Your task to perform on an android device: Go to Android settings Image 0: 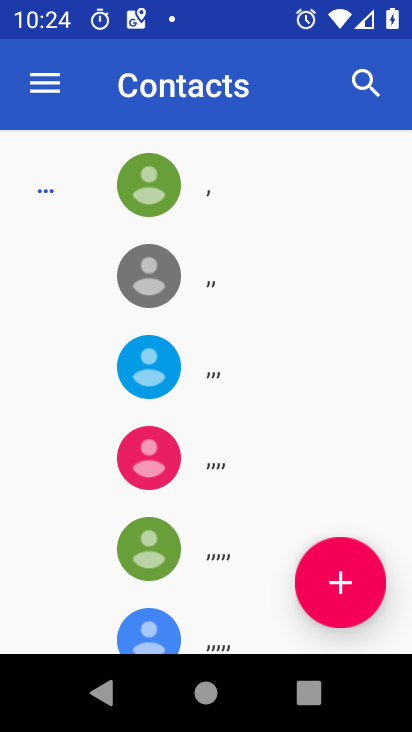
Step 0: press home button
Your task to perform on an android device: Go to Android settings Image 1: 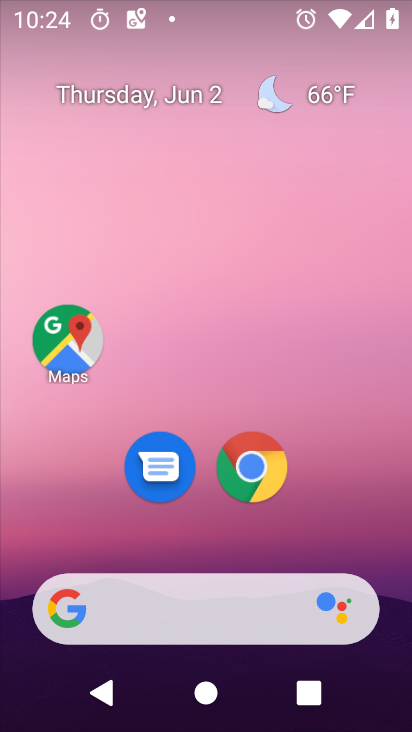
Step 1: drag from (22, 725) to (198, 246)
Your task to perform on an android device: Go to Android settings Image 2: 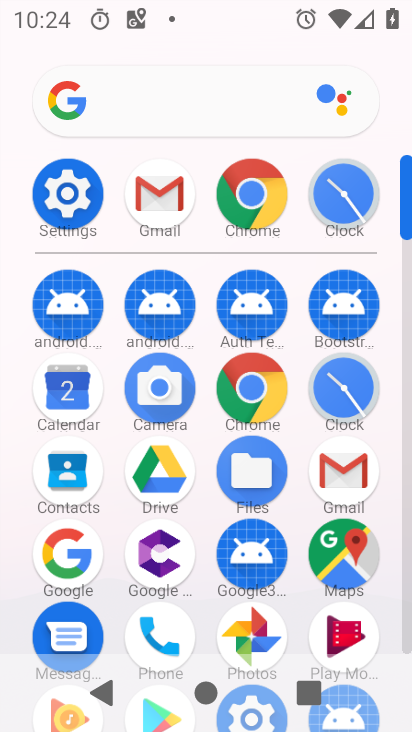
Step 2: click (87, 188)
Your task to perform on an android device: Go to Android settings Image 3: 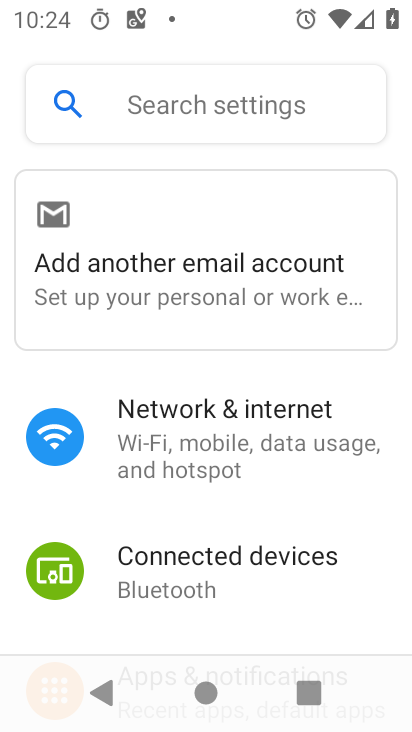
Step 3: drag from (0, 184) to (221, 96)
Your task to perform on an android device: Go to Android settings Image 4: 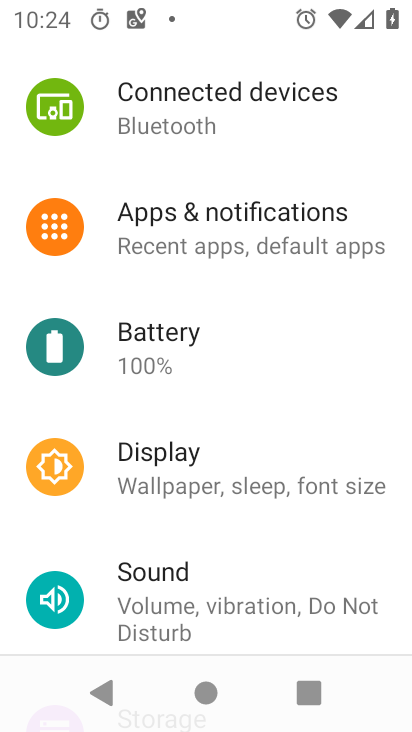
Step 4: drag from (4, 609) to (233, 185)
Your task to perform on an android device: Go to Android settings Image 5: 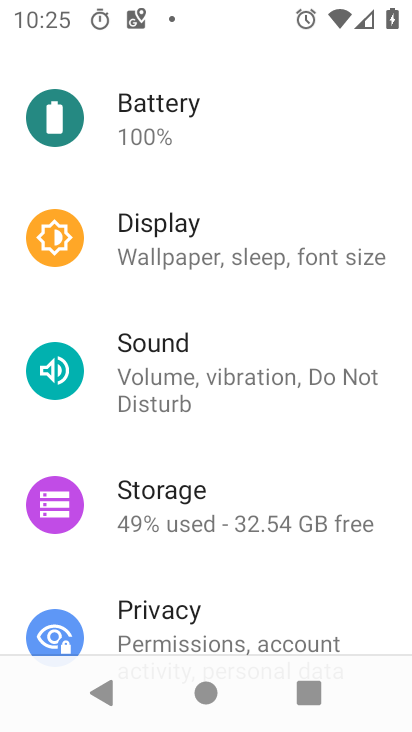
Step 5: drag from (46, 515) to (283, 195)
Your task to perform on an android device: Go to Android settings Image 6: 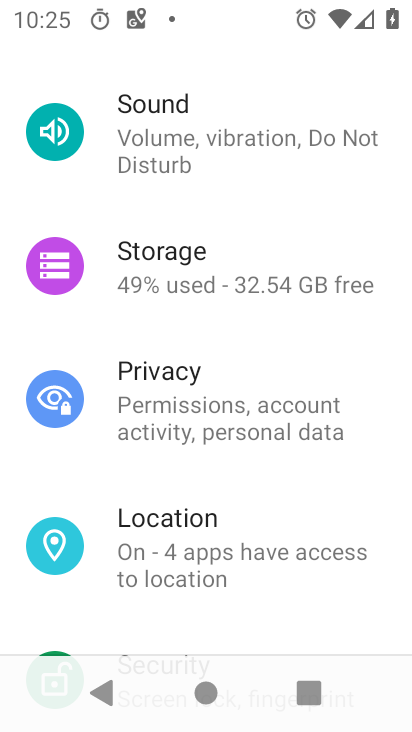
Step 6: drag from (0, 461) to (183, 151)
Your task to perform on an android device: Go to Android settings Image 7: 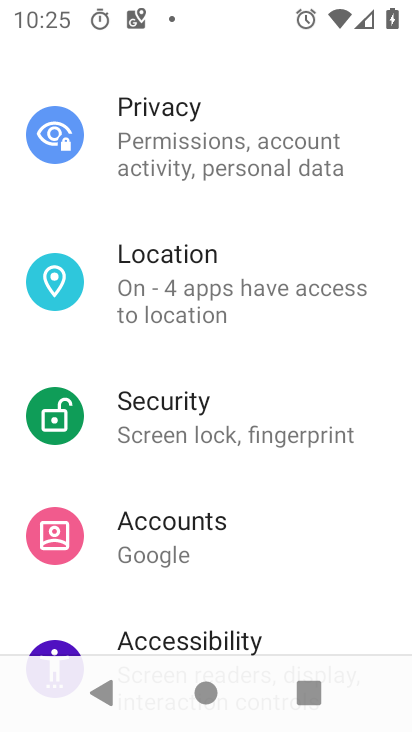
Step 7: drag from (13, 249) to (170, 97)
Your task to perform on an android device: Go to Android settings Image 8: 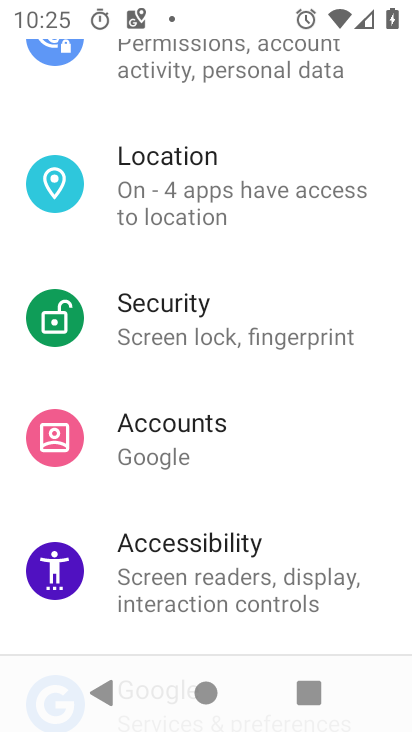
Step 8: drag from (19, 590) to (342, 127)
Your task to perform on an android device: Go to Android settings Image 9: 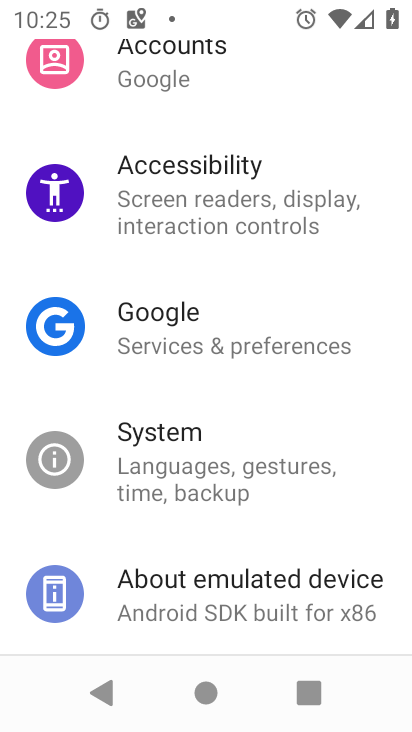
Step 9: click (151, 584)
Your task to perform on an android device: Go to Android settings Image 10: 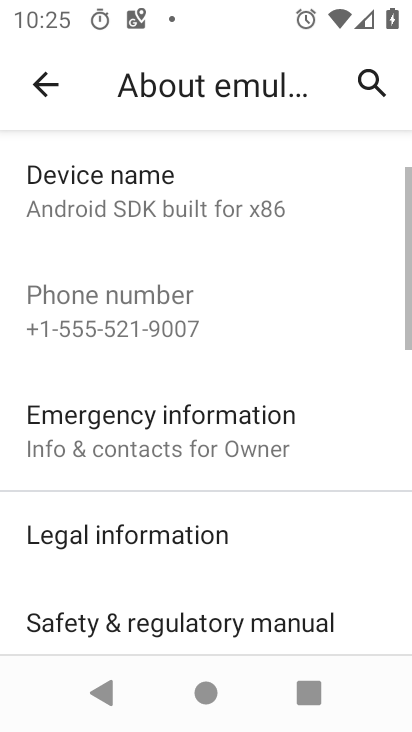
Step 10: task complete